Your task to perform on an android device: Search for pizza restaurants on Maps Image 0: 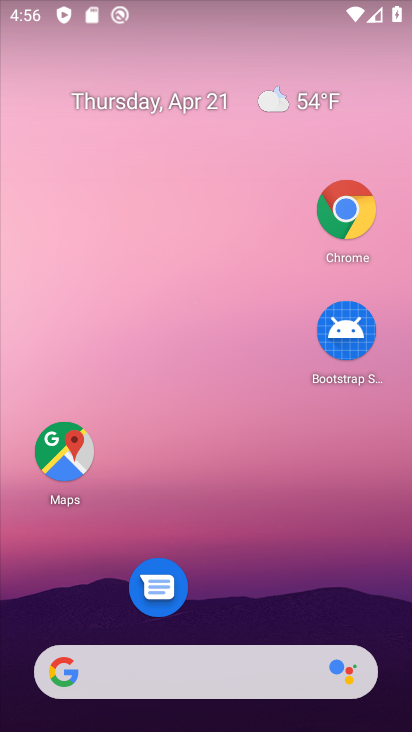
Step 0: drag from (275, 471) to (271, 85)
Your task to perform on an android device: Search for pizza restaurants on Maps Image 1: 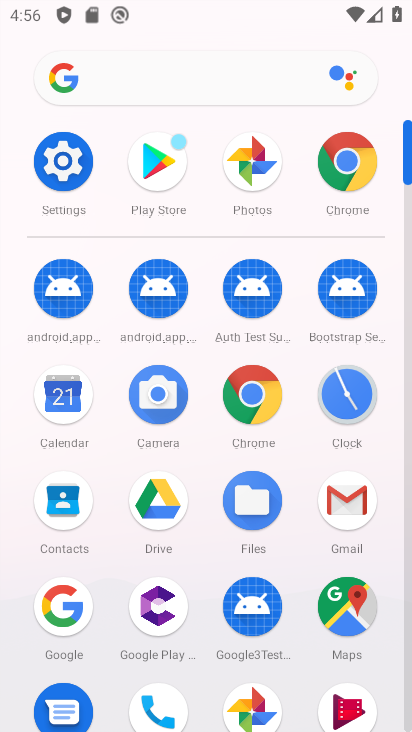
Step 1: click (359, 611)
Your task to perform on an android device: Search for pizza restaurants on Maps Image 2: 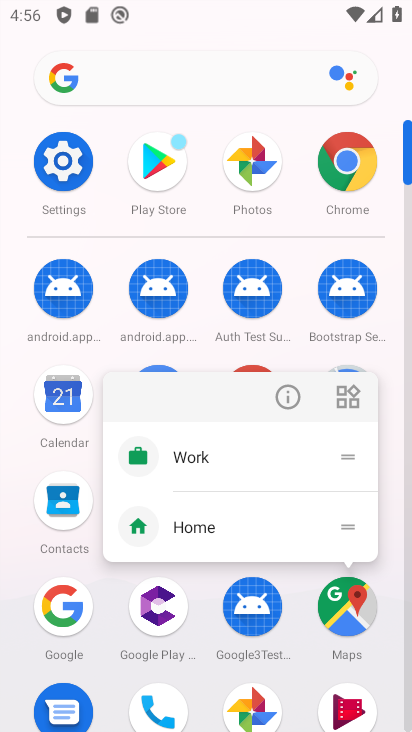
Step 2: click (338, 615)
Your task to perform on an android device: Search for pizza restaurants on Maps Image 3: 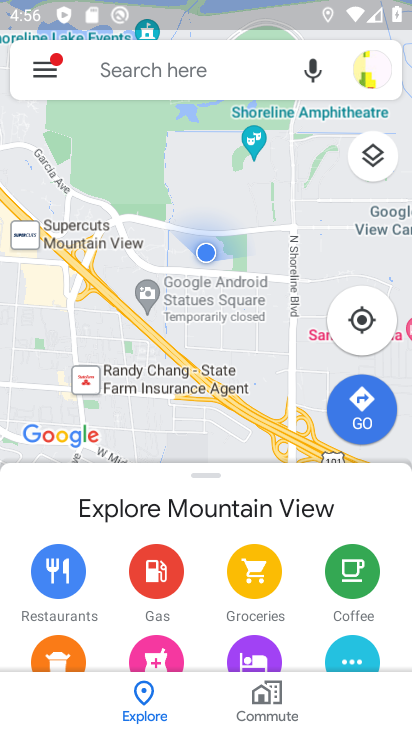
Step 3: click (106, 71)
Your task to perform on an android device: Search for pizza restaurants on Maps Image 4: 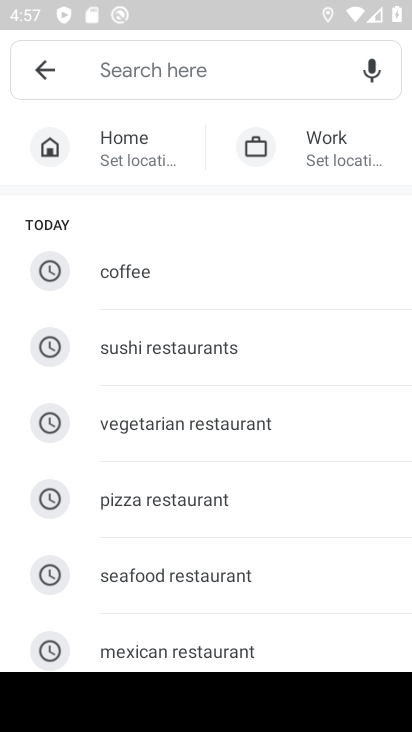
Step 4: type " pizza restaurants "
Your task to perform on an android device: Search for pizza restaurants on Maps Image 5: 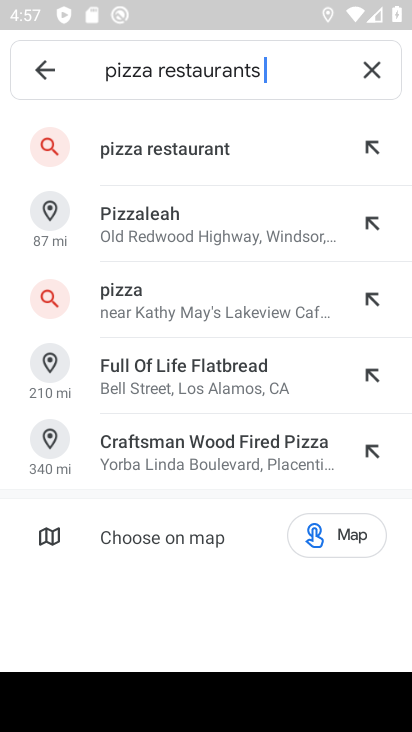
Step 5: click (199, 141)
Your task to perform on an android device: Search for pizza restaurants on Maps Image 6: 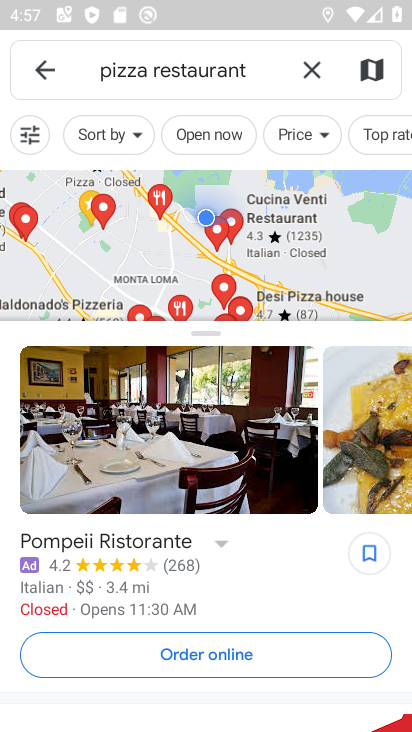
Step 6: task complete